Your task to perform on an android device: Open Android settings Image 0: 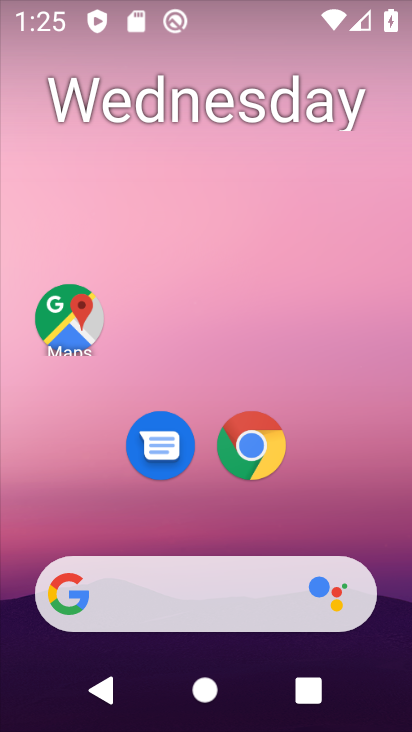
Step 0: drag from (241, 536) to (285, 15)
Your task to perform on an android device: Open Android settings Image 1: 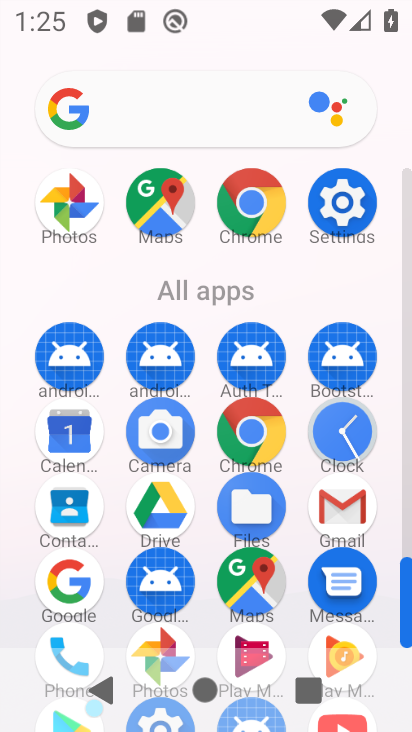
Step 1: click (340, 169)
Your task to perform on an android device: Open Android settings Image 2: 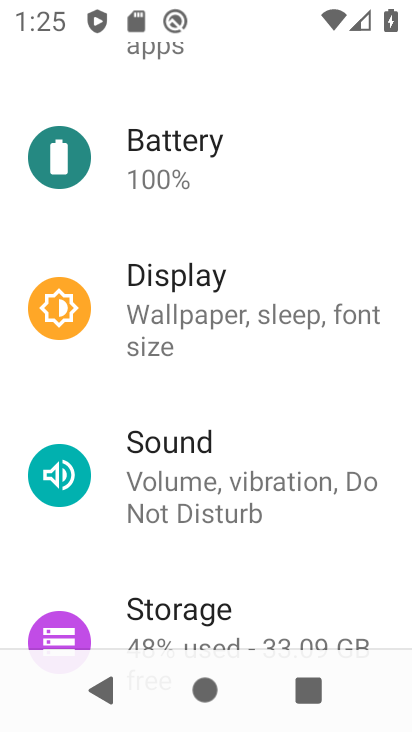
Step 2: task complete